Your task to perform on an android device: turn off translation in the chrome app Image 0: 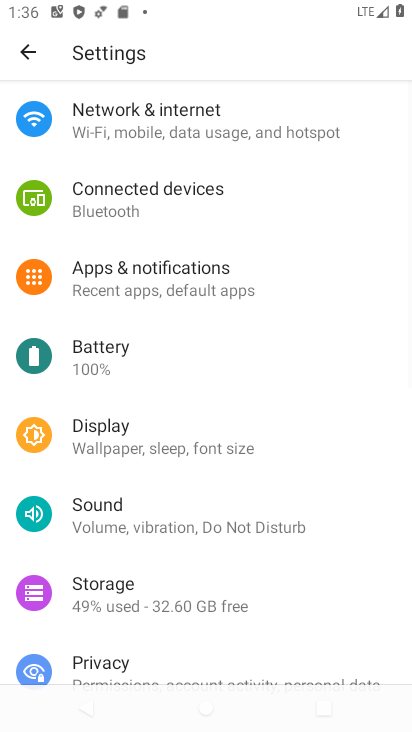
Step 0: press home button
Your task to perform on an android device: turn off translation in the chrome app Image 1: 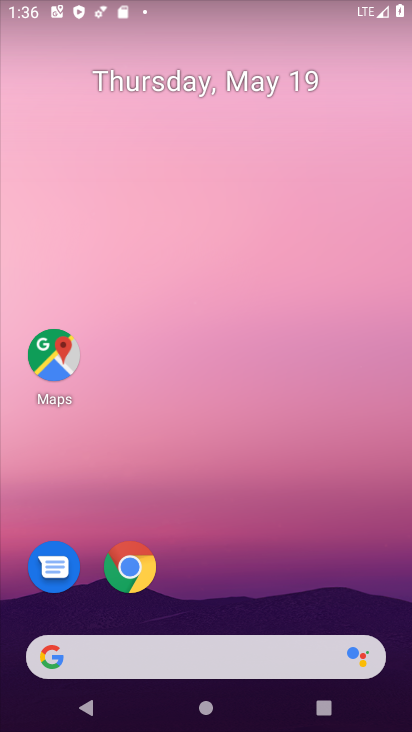
Step 1: click (146, 573)
Your task to perform on an android device: turn off translation in the chrome app Image 2: 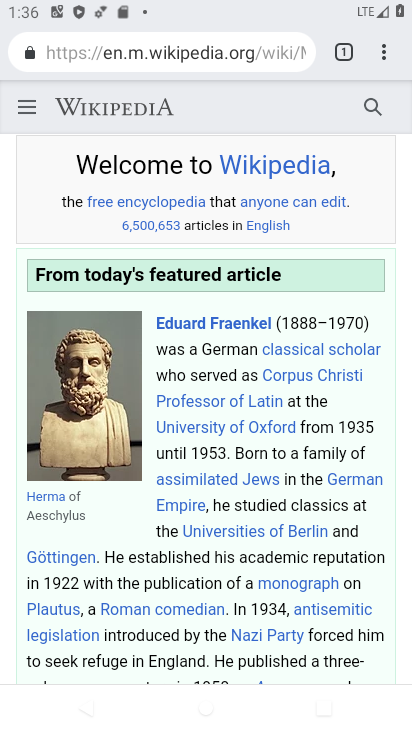
Step 2: click (385, 52)
Your task to perform on an android device: turn off translation in the chrome app Image 3: 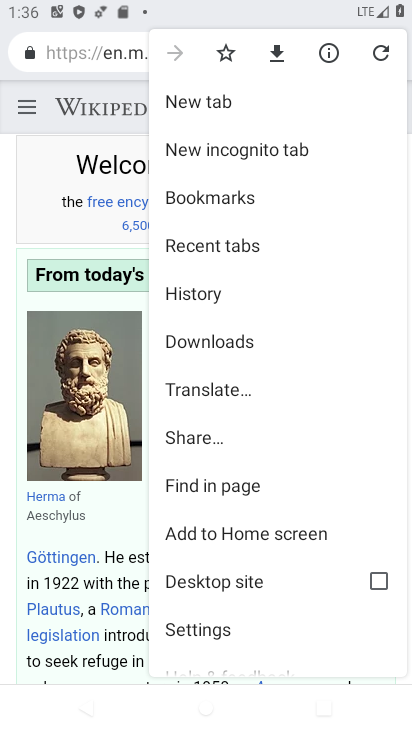
Step 3: click (202, 639)
Your task to perform on an android device: turn off translation in the chrome app Image 4: 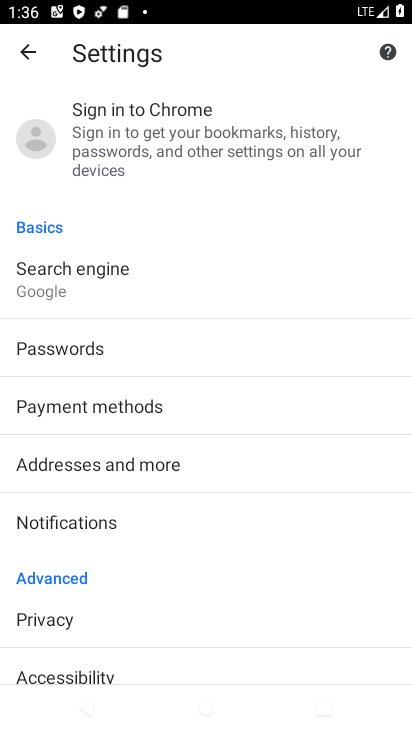
Step 4: drag from (190, 669) to (357, 117)
Your task to perform on an android device: turn off translation in the chrome app Image 5: 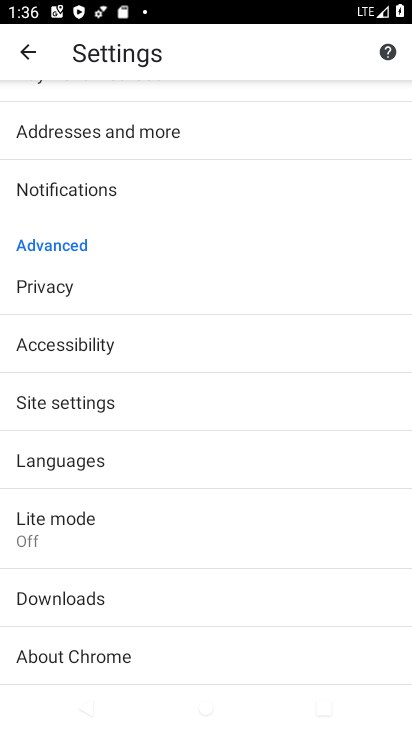
Step 5: drag from (160, 521) to (184, 297)
Your task to perform on an android device: turn off translation in the chrome app Image 6: 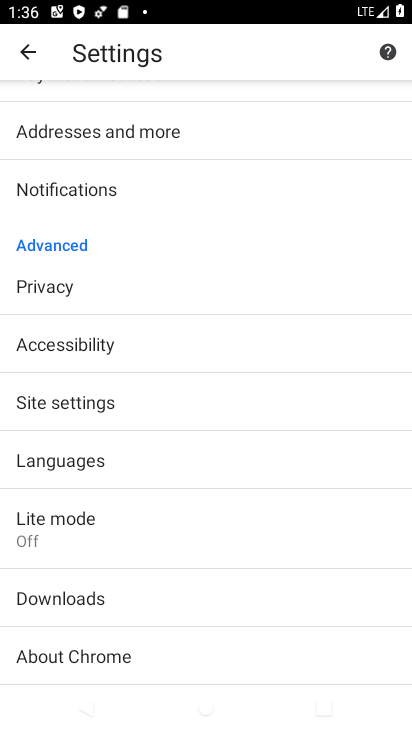
Step 6: click (125, 459)
Your task to perform on an android device: turn off translation in the chrome app Image 7: 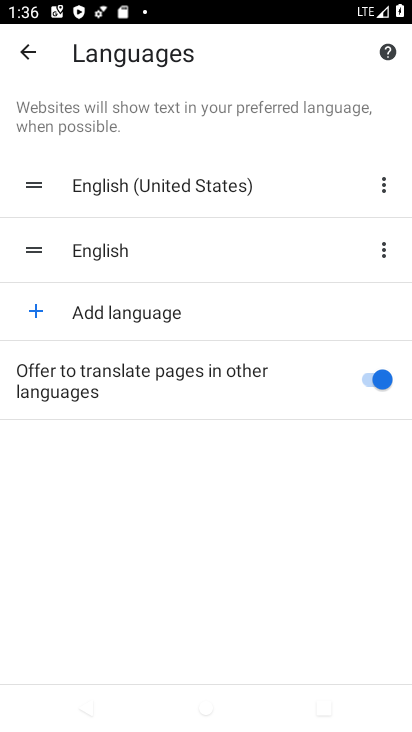
Step 7: click (374, 378)
Your task to perform on an android device: turn off translation in the chrome app Image 8: 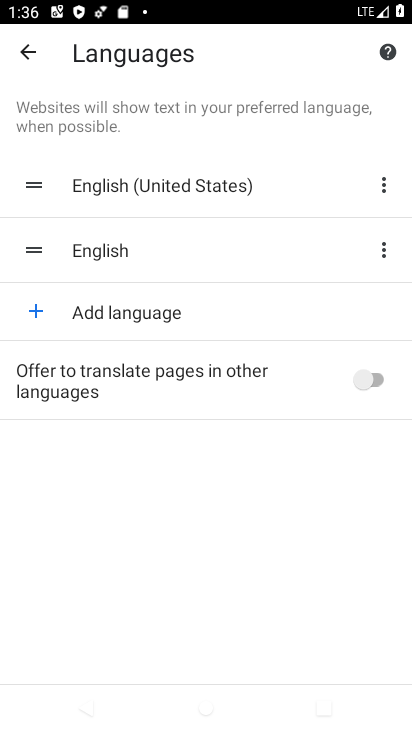
Step 8: task complete